Your task to perform on an android device: View the shopping cart on ebay.com. Search for "macbook" on ebay.com, select the first entry, and add it to the cart. Image 0: 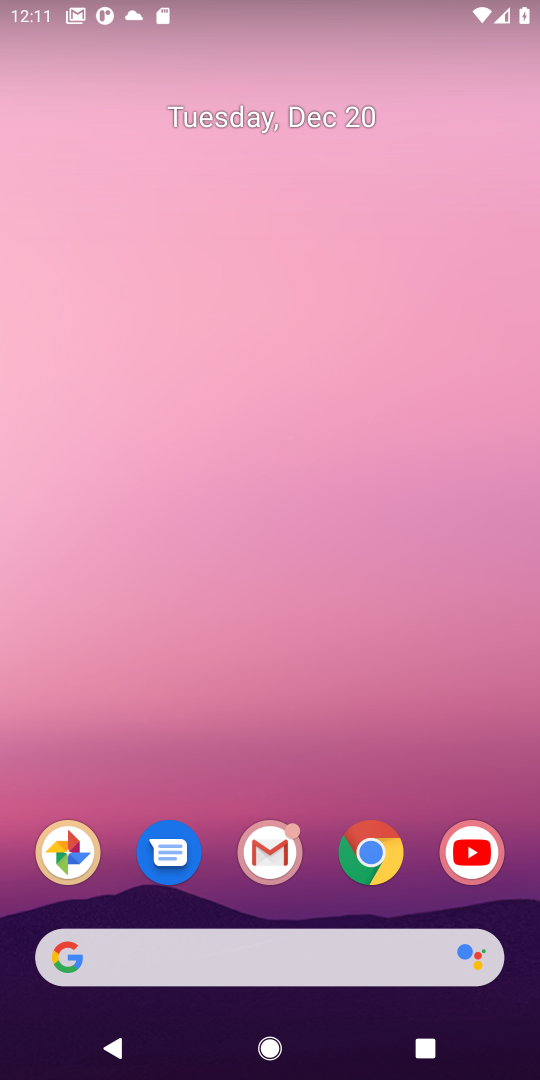
Step 0: click (369, 868)
Your task to perform on an android device: View the shopping cart on ebay.com. Search for "macbook" on ebay.com, select the first entry, and add it to the cart. Image 1: 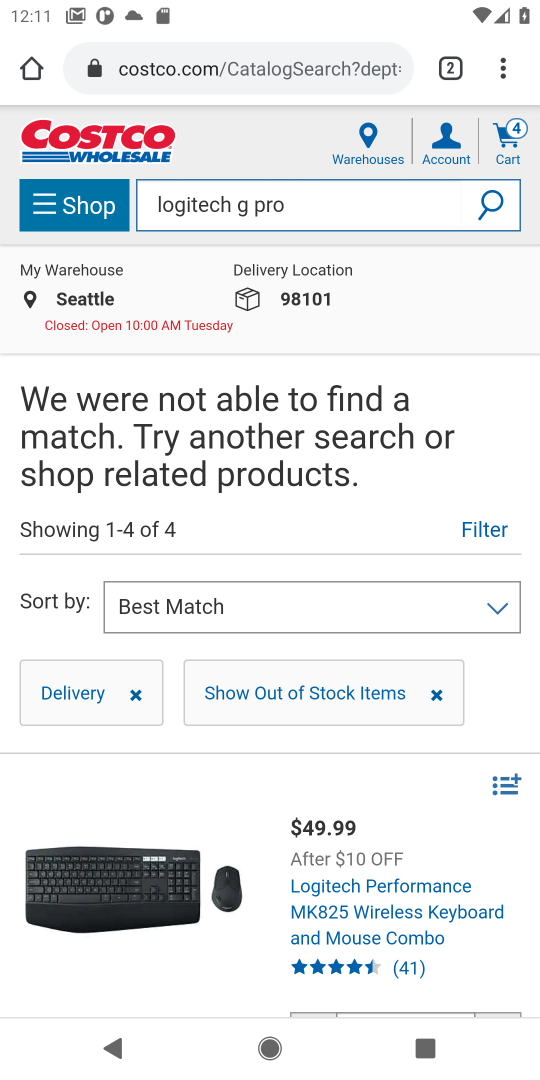
Step 1: click (233, 74)
Your task to perform on an android device: View the shopping cart on ebay.com. Search for "macbook" on ebay.com, select the first entry, and add it to the cart. Image 2: 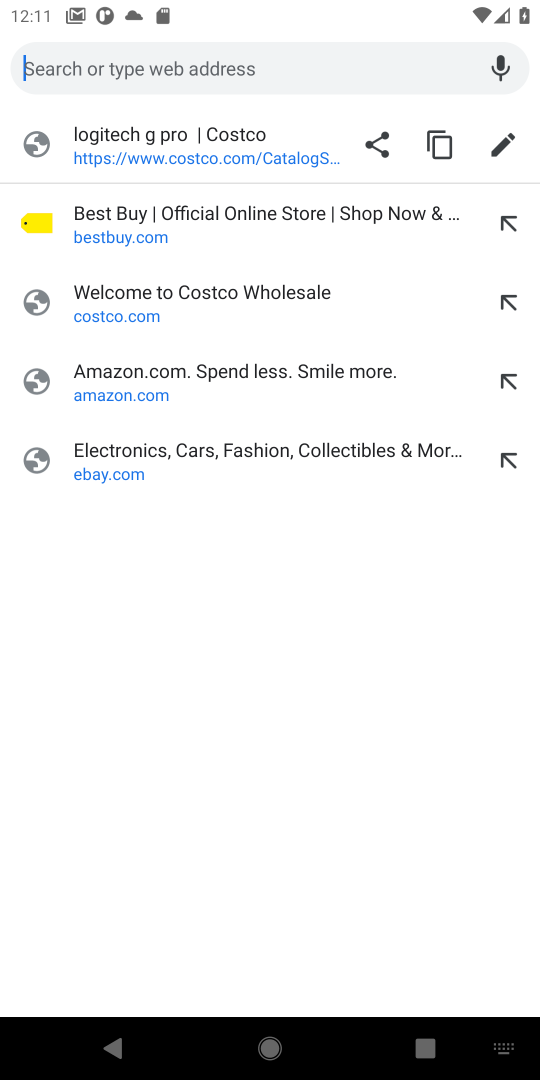
Step 2: click (103, 481)
Your task to perform on an android device: View the shopping cart on ebay.com. Search for "macbook" on ebay.com, select the first entry, and add it to the cart. Image 3: 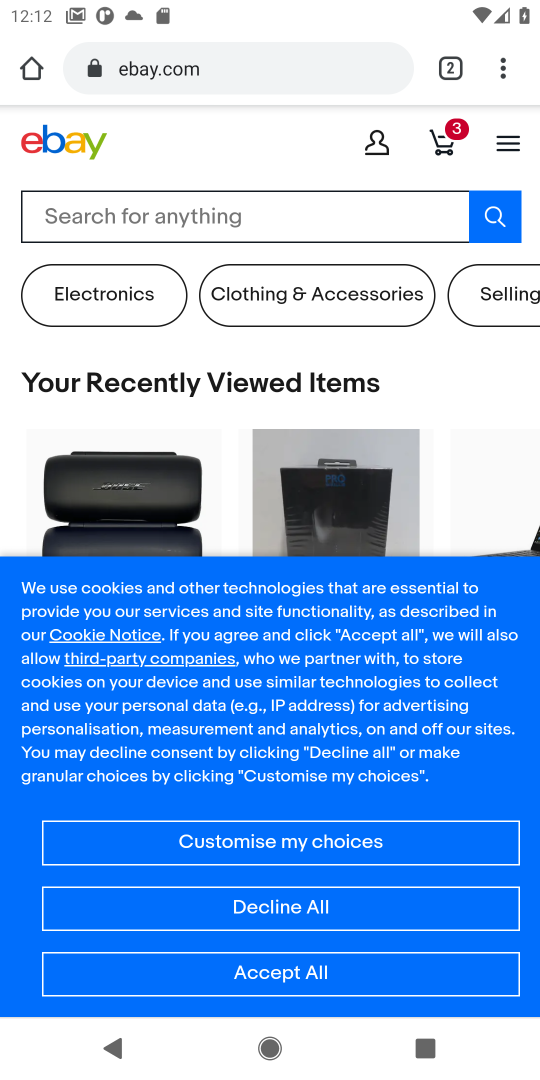
Step 3: click (442, 142)
Your task to perform on an android device: View the shopping cart on ebay.com. Search for "macbook" on ebay.com, select the first entry, and add it to the cart. Image 4: 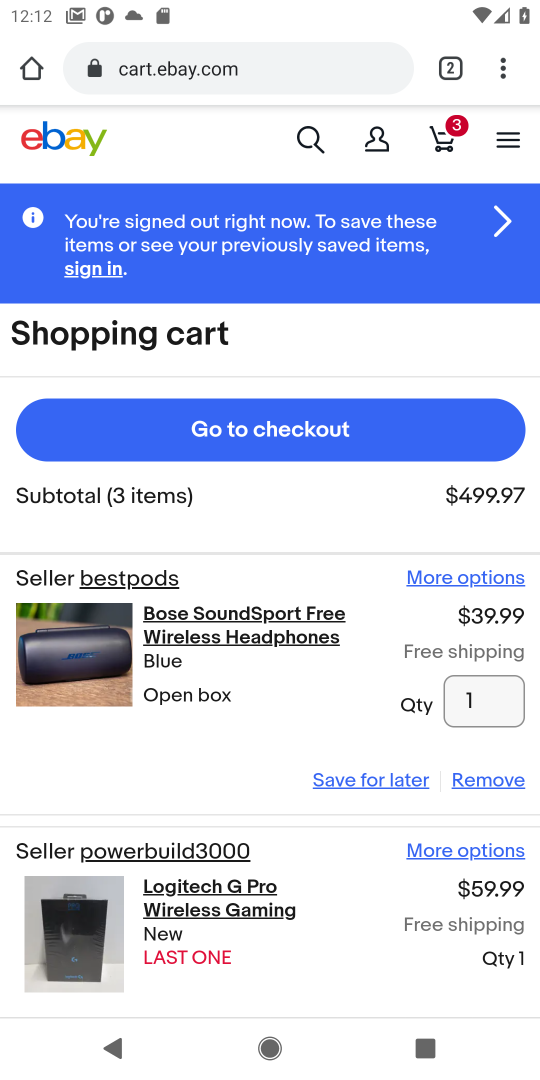
Step 4: click (302, 146)
Your task to perform on an android device: View the shopping cart on ebay.com. Search for "macbook" on ebay.com, select the first entry, and add it to the cart. Image 5: 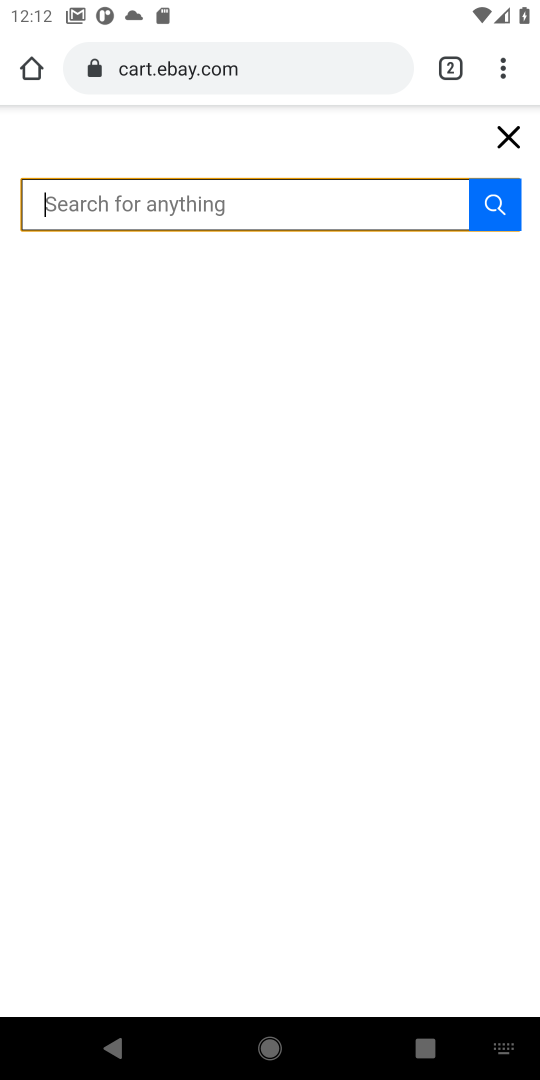
Step 5: type "macbook"
Your task to perform on an android device: View the shopping cart on ebay.com. Search for "macbook" on ebay.com, select the first entry, and add it to the cart. Image 6: 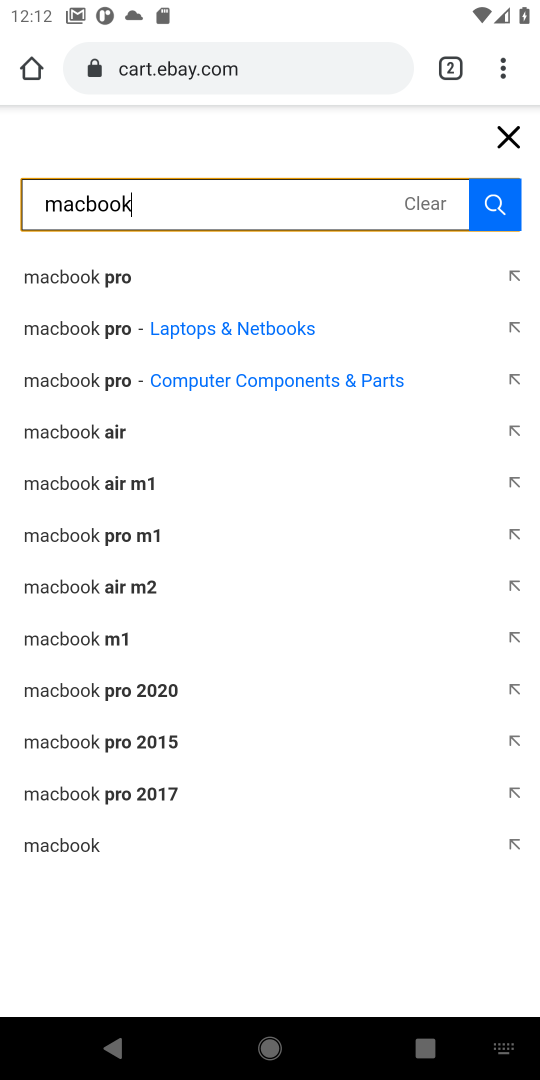
Step 6: click (65, 852)
Your task to perform on an android device: View the shopping cart on ebay.com. Search for "macbook" on ebay.com, select the first entry, and add it to the cart. Image 7: 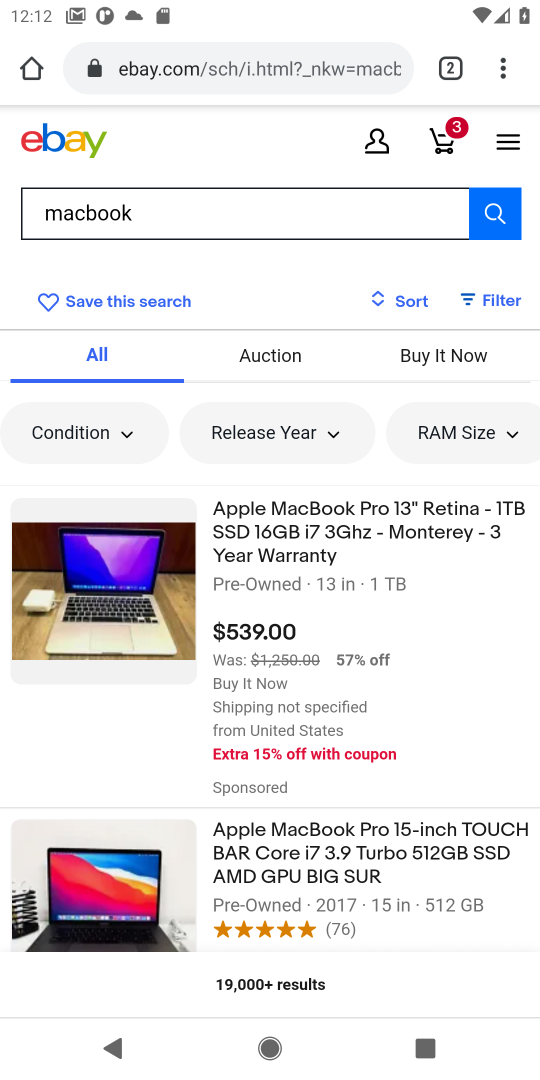
Step 7: click (268, 547)
Your task to perform on an android device: View the shopping cart on ebay.com. Search for "macbook" on ebay.com, select the first entry, and add it to the cart. Image 8: 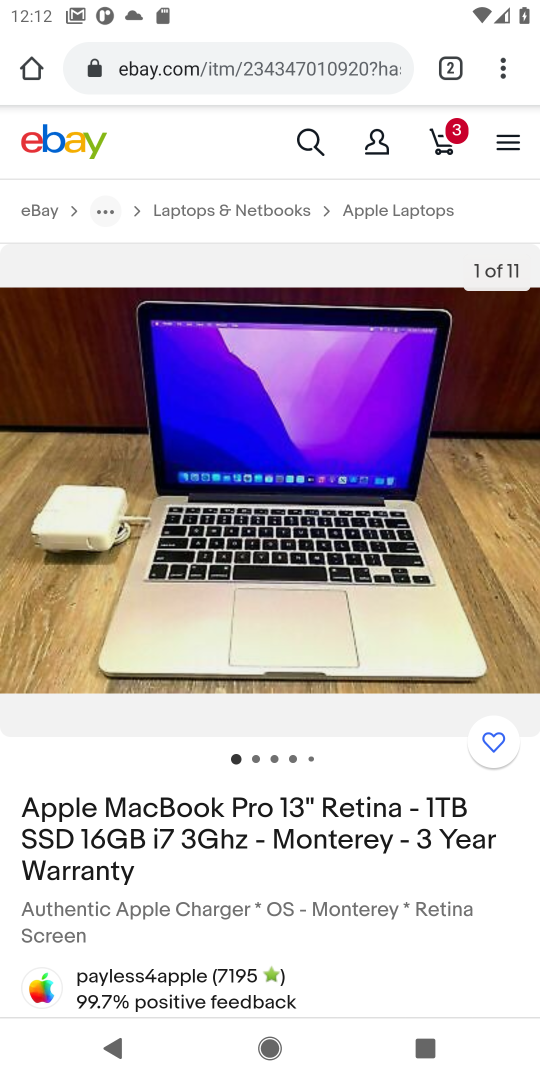
Step 8: drag from (276, 790) to (275, 517)
Your task to perform on an android device: View the shopping cart on ebay.com. Search for "macbook" on ebay.com, select the first entry, and add it to the cart. Image 9: 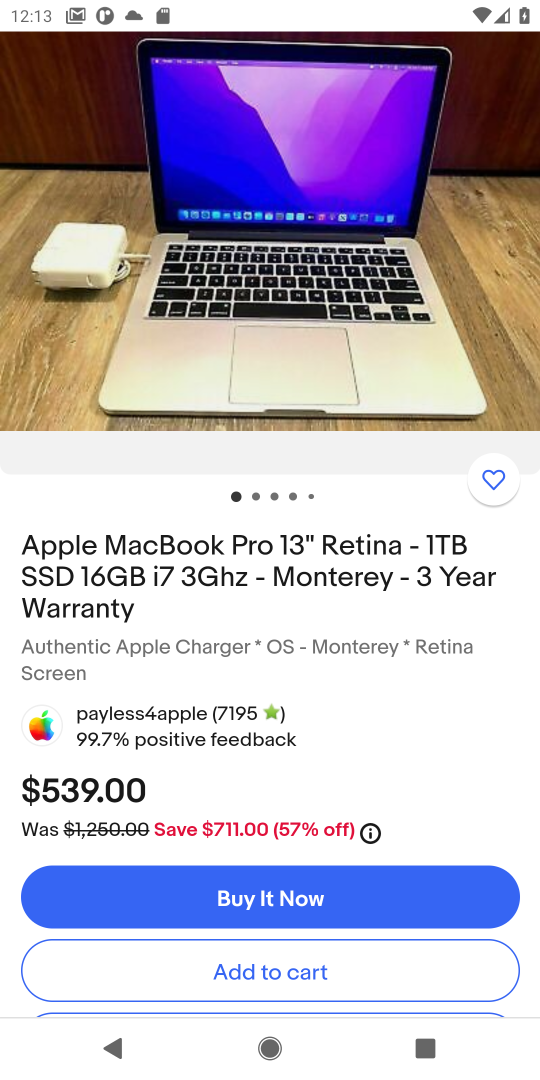
Step 9: drag from (269, 745) to (279, 392)
Your task to perform on an android device: View the shopping cart on ebay.com. Search for "macbook" on ebay.com, select the first entry, and add it to the cart. Image 10: 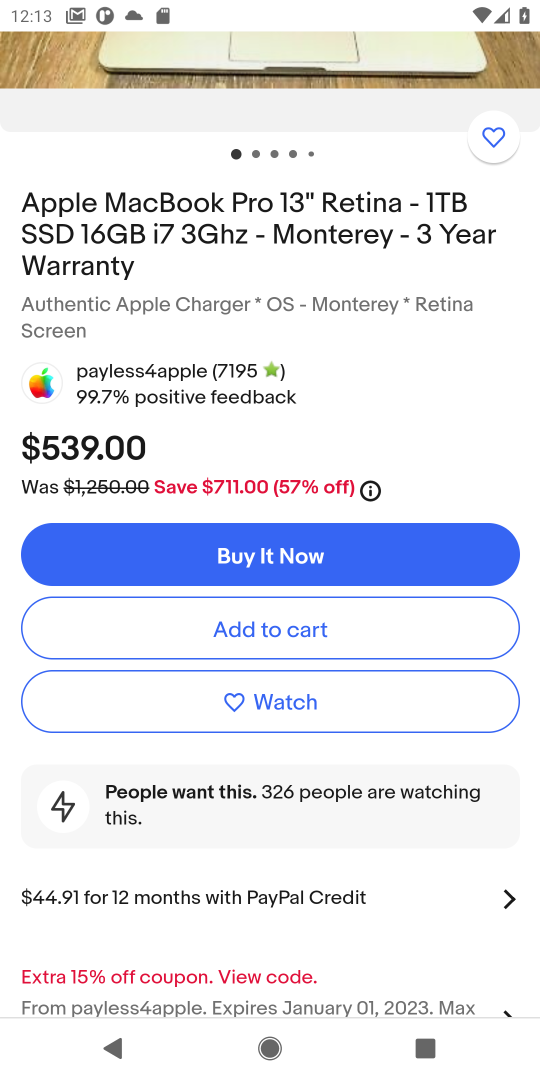
Step 10: click (250, 633)
Your task to perform on an android device: View the shopping cart on ebay.com. Search for "macbook" on ebay.com, select the first entry, and add it to the cart. Image 11: 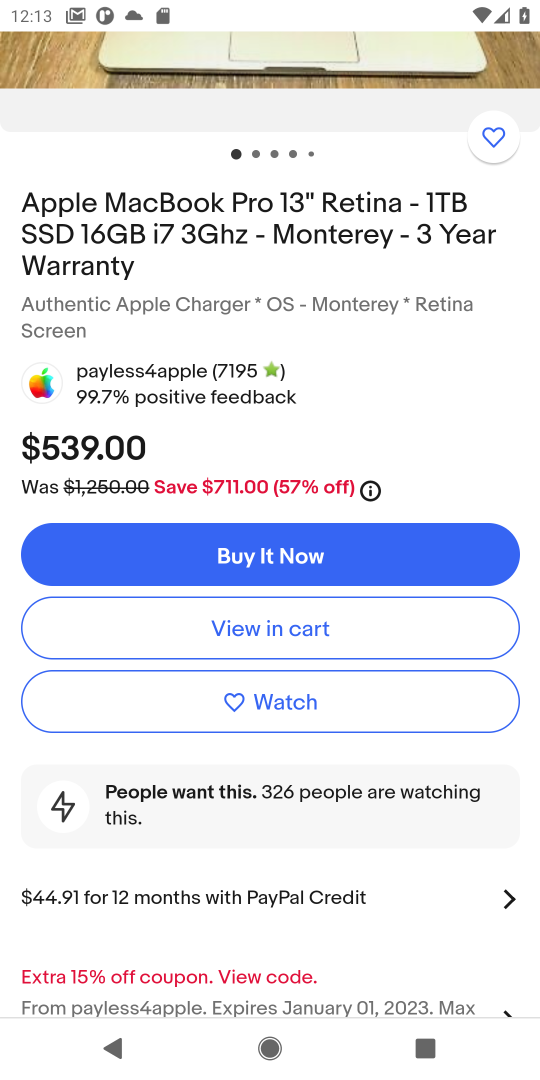
Step 11: task complete